Your task to perform on an android device: toggle improve location accuracy Image 0: 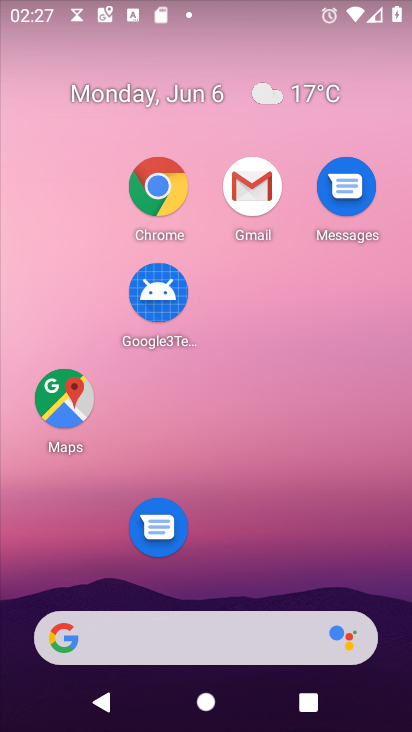
Step 0: drag from (306, 513) to (258, 93)
Your task to perform on an android device: toggle improve location accuracy Image 1: 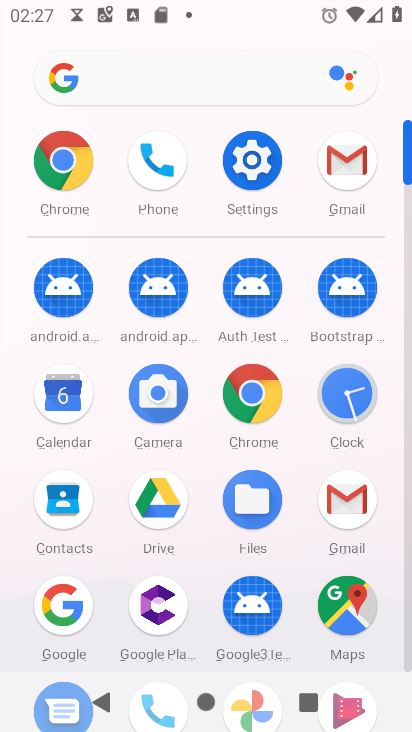
Step 1: click (251, 152)
Your task to perform on an android device: toggle improve location accuracy Image 2: 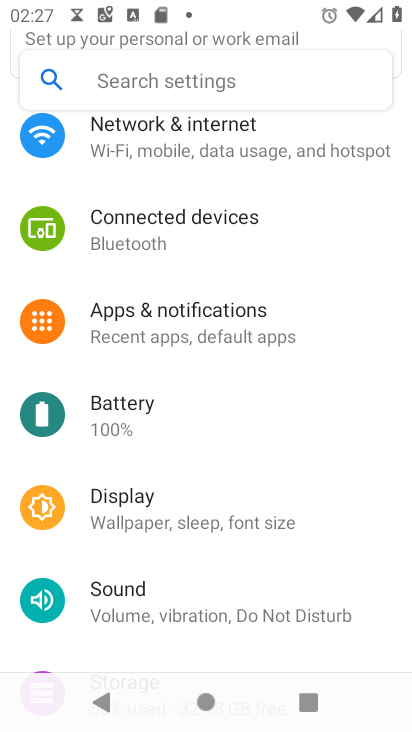
Step 2: drag from (387, 594) to (311, 159)
Your task to perform on an android device: toggle improve location accuracy Image 3: 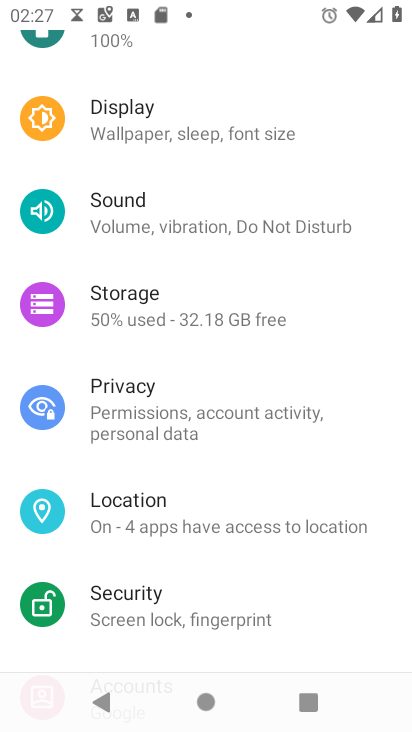
Step 3: click (112, 490)
Your task to perform on an android device: toggle improve location accuracy Image 4: 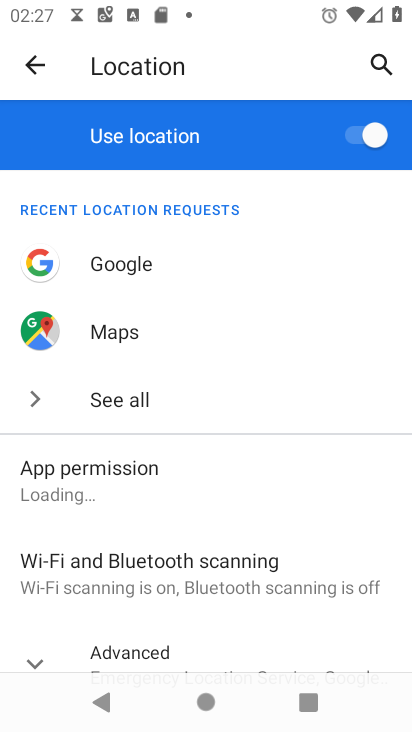
Step 4: click (249, 613)
Your task to perform on an android device: toggle improve location accuracy Image 5: 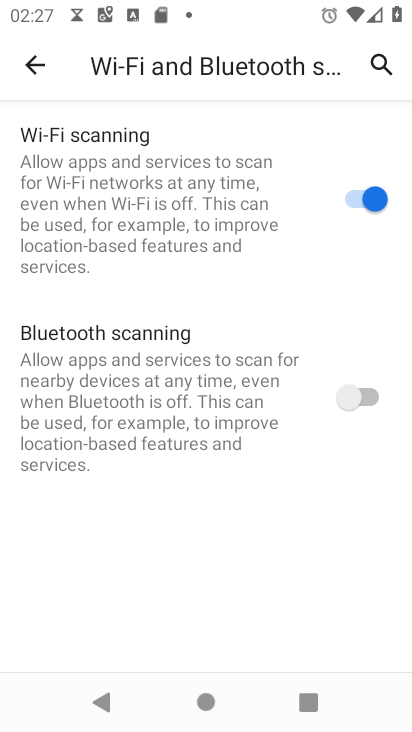
Step 5: press back button
Your task to perform on an android device: toggle improve location accuracy Image 6: 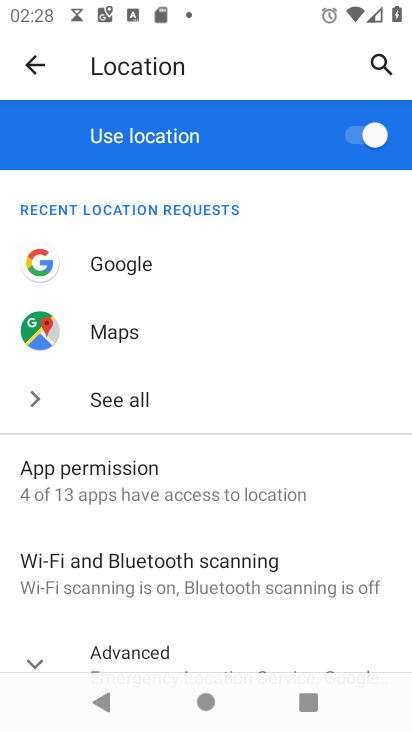
Step 6: click (322, 651)
Your task to perform on an android device: toggle improve location accuracy Image 7: 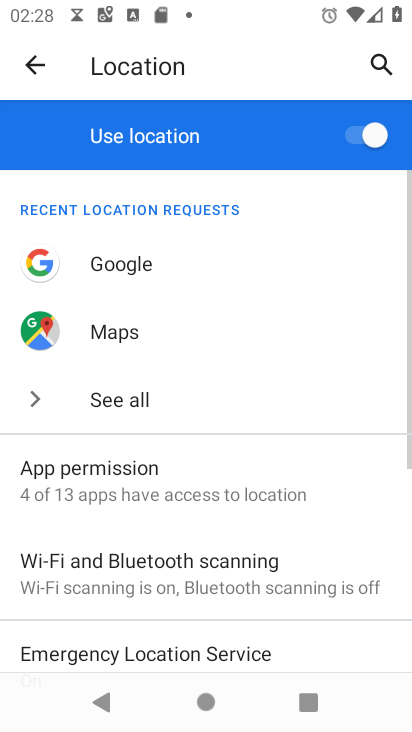
Step 7: drag from (374, 626) to (397, 255)
Your task to perform on an android device: toggle improve location accuracy Image 8: 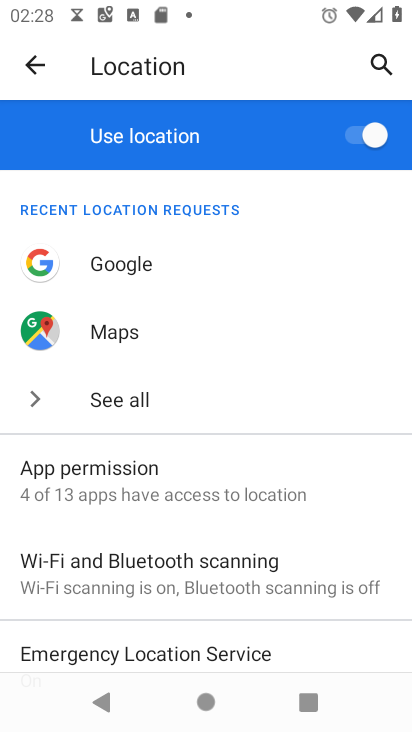
Step 8: drag from (389, 654) to (365, 297)
Your task to perform on an android device: toggle improve location accuracy Image 9: 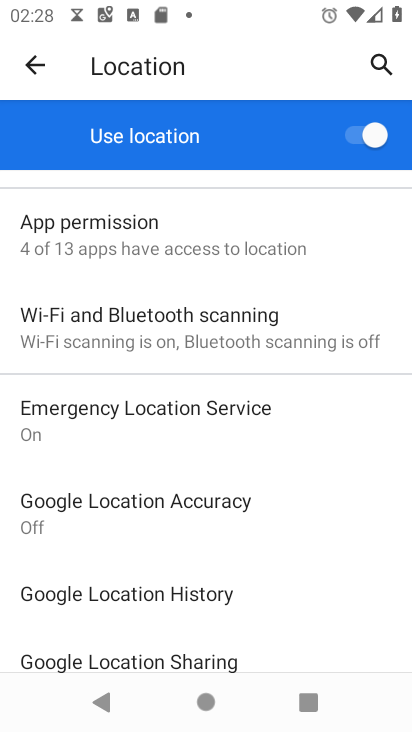
Step 9: click (179, 503)
Your task to perform on an android device: toggle improve location accuracy Image 10: 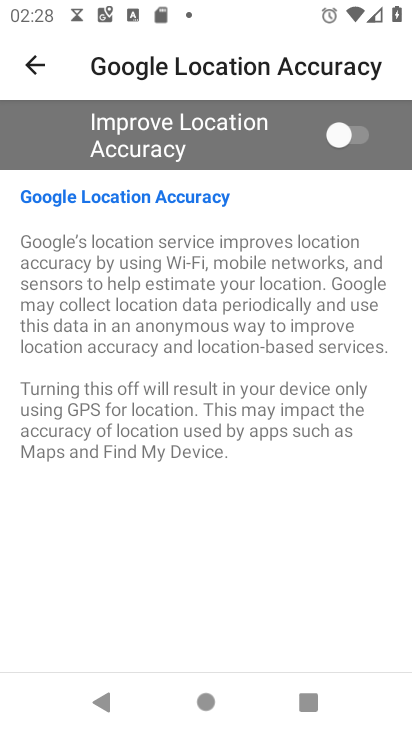
Step 10: click (359, 130)
Your task to perform on an android device: toggle improve location accuracy Image 11: 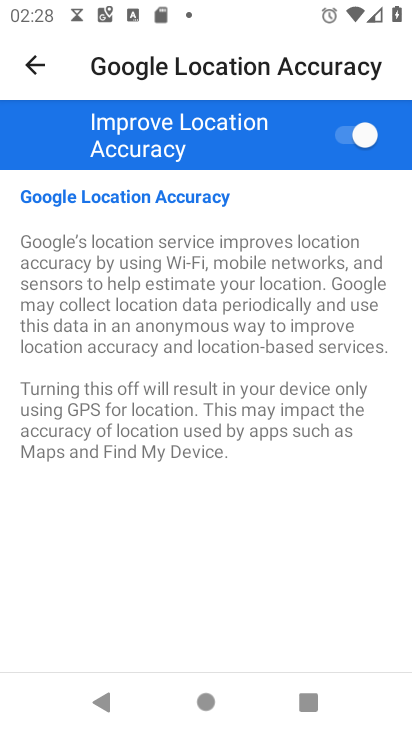
Step 11: task complete